Your task to perform on an android device: Open Google Image 0: 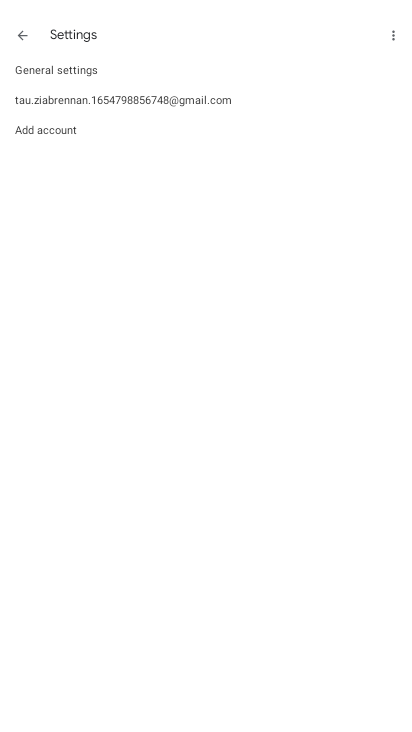
Step 0: press home button
Your task to perform on an android device: Open Google Image 1: 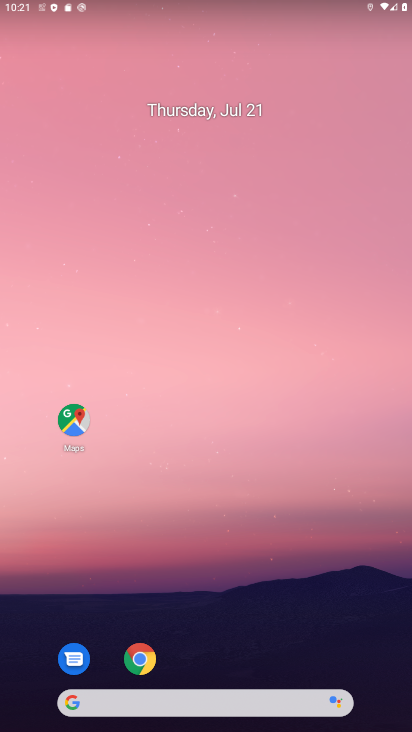
Step 1: click (186, 692)
Your task to perform on an android device: Open Google Image 2: 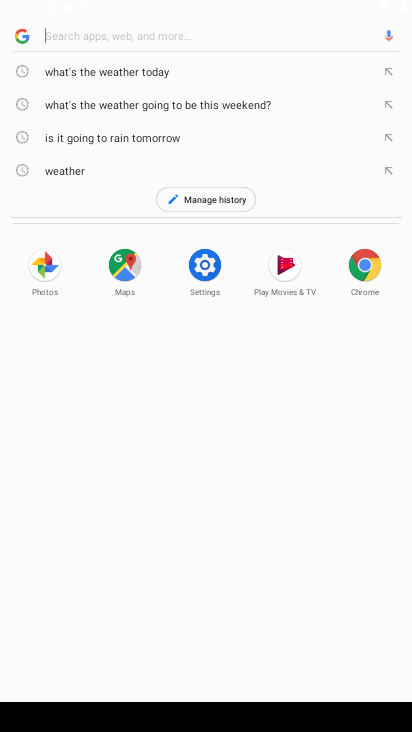
Step 2: task complete